Your task to perform on an android device: turn on data saver in the chrome app Image 0: 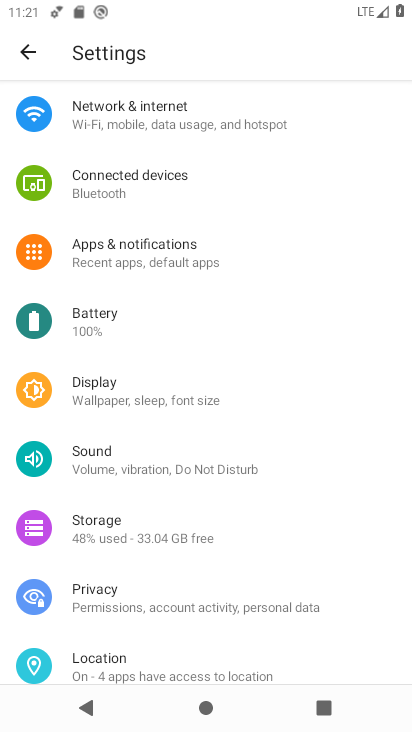
Step 0: press home button
Your task to perform on an android device: turn on data saver in the chrome app Image 1: 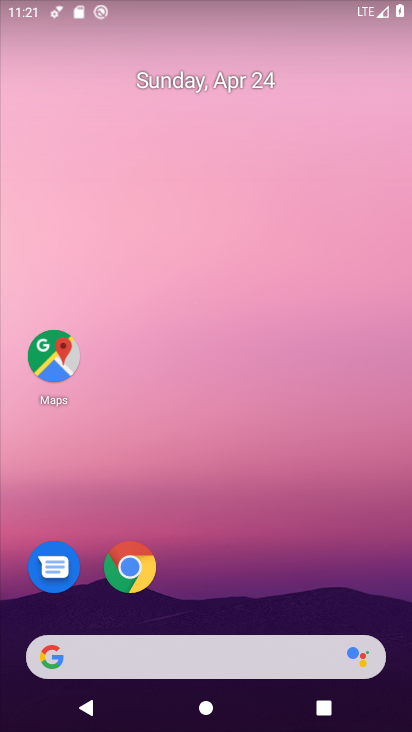
Step 1: click (132, 575)
Your task to perform on an android device: turn on data saver in the chrome app Image 2: 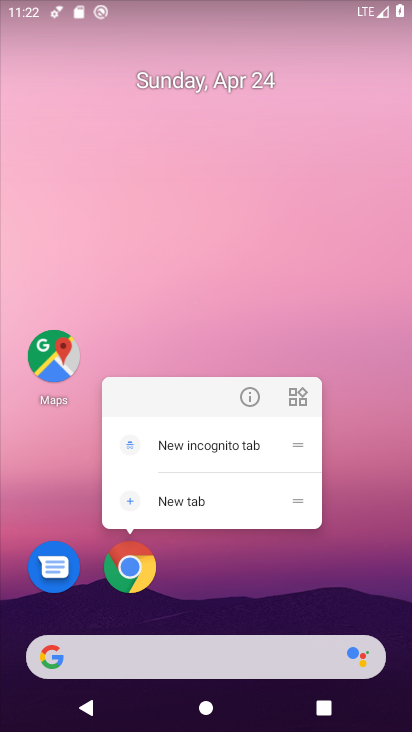
Step 2: click (130, 587)
Your task to perform on an android device: turn on data saver in the chrome app Image 3: 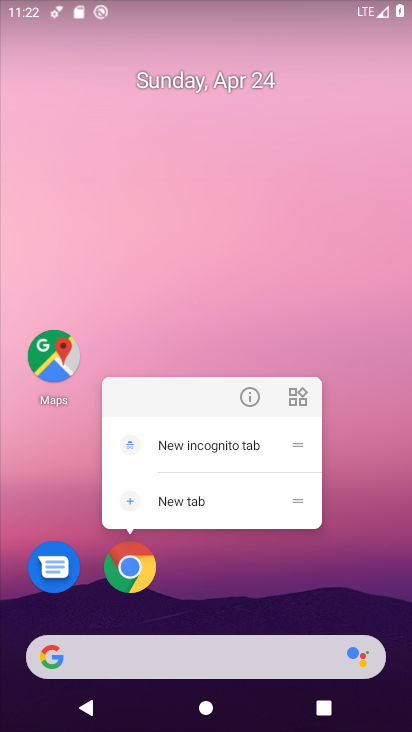
Step 3: click (151, 565)
Your task to perform on an android device: turn on data saver in the chrome app Image 4: 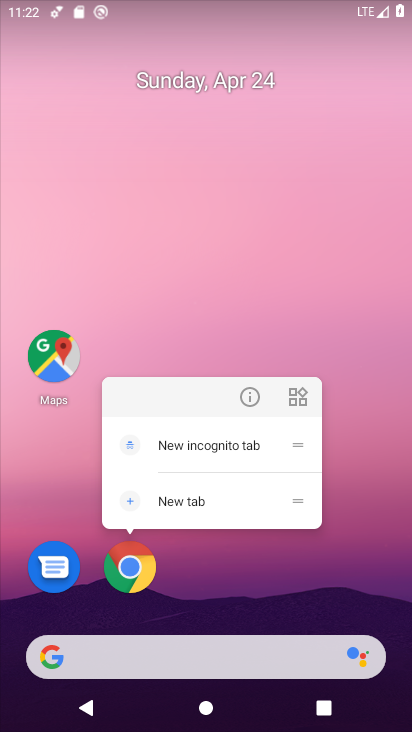
Step 4: click (151, 566)
Your task to perform on an android device: turn on data saver in the chrome app Image 5: 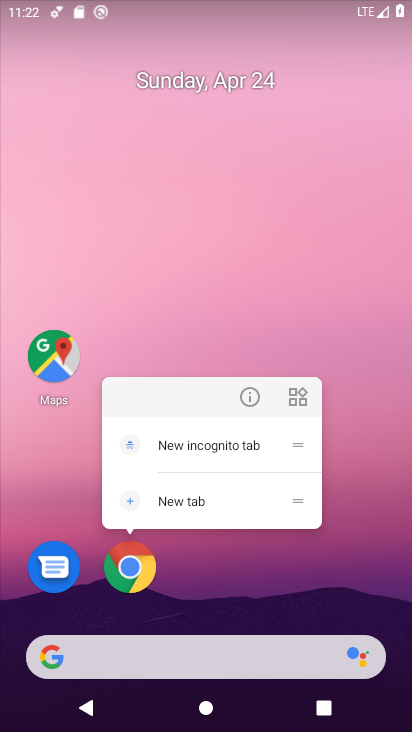
Step 5: click (150, 568)
Your task to perform on an android device: turn on data saver in the chrome app Image 6: 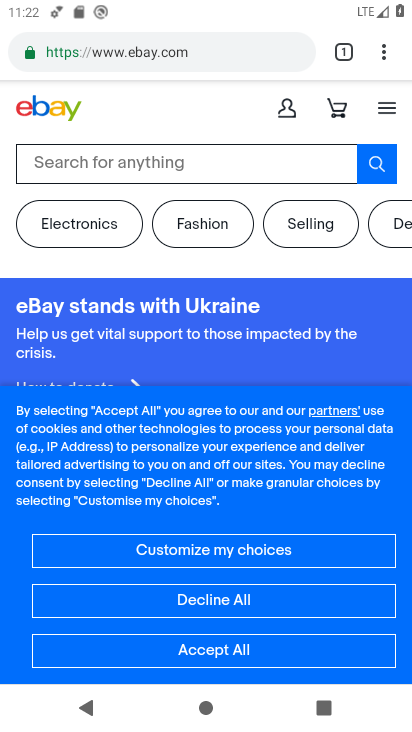
Step 6: click (381, 59)
Your task to perform on an android device: turn on data saver in the chrome app Image 7: 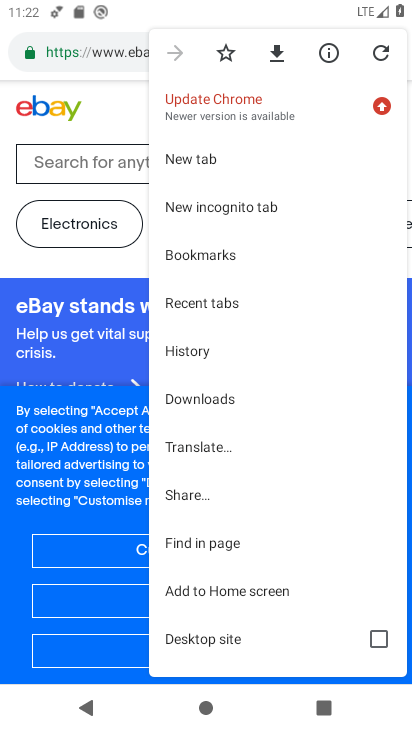
Step 7: drag from (269, 536) to (321, 114)
Your task to perform on an android device: turn on data saver in the chrome app Image 8: 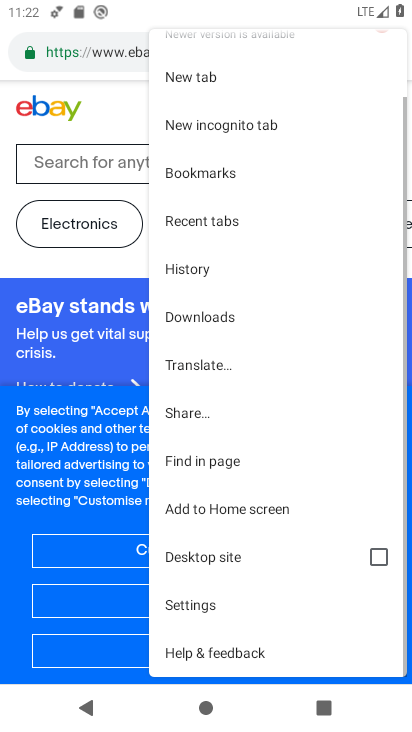
Step 8: click (208, 609)
Your task to perform on an android device: turn on data saver in the chrome app Image 9: 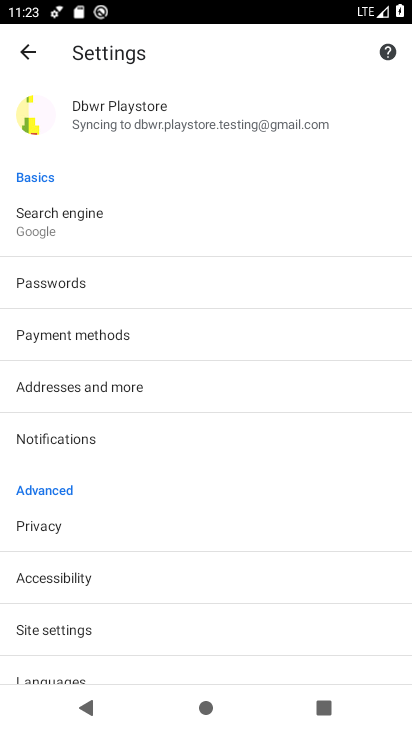
Step 9: drag from (150, 557) to (347, 19)
Your task to perform on an android device: turn on data saver in the chrome app Image 10: 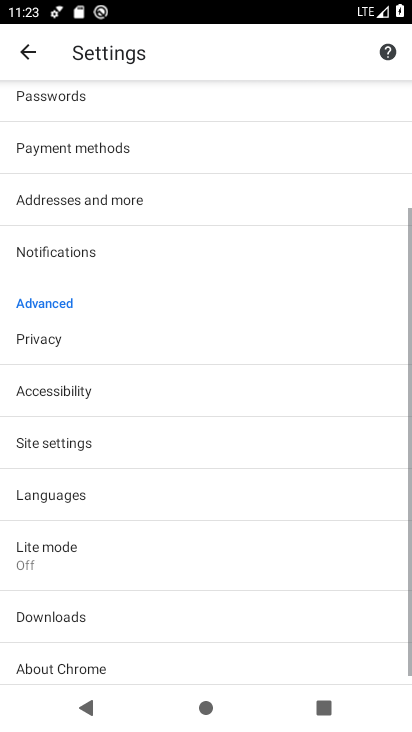
Step 10: click (118, 561)
Your task to perform on an android device: turn on data saver in the chrome app Image 11: 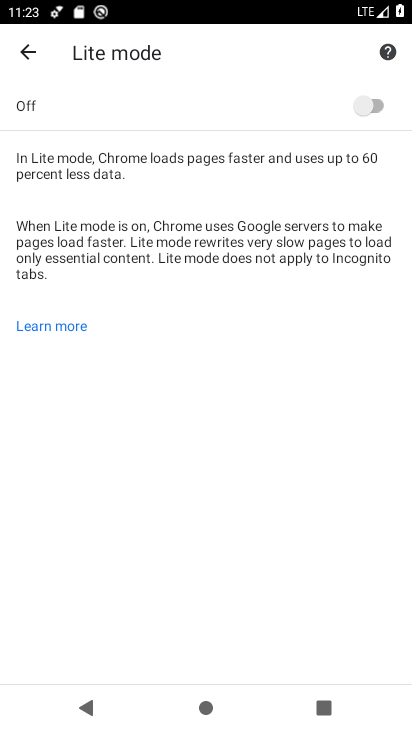
Step 11: click (369, 108)
Your task to perform on an android device: turn on data saver in the chrome app Image 12: 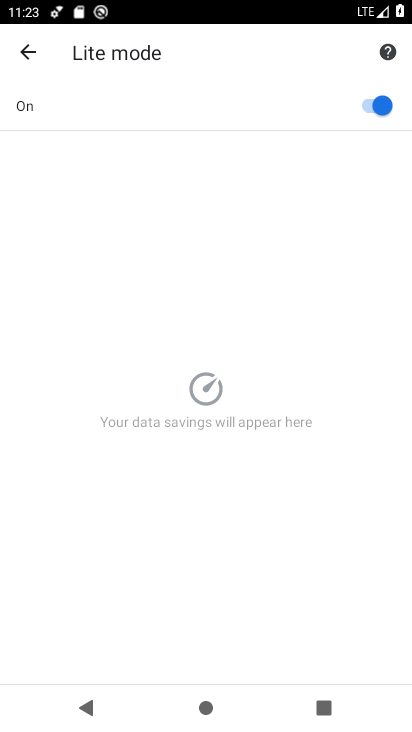
Step 12: task complete